Your task to perform on an android device: turn on showing notifications on the lock screen Image 0: 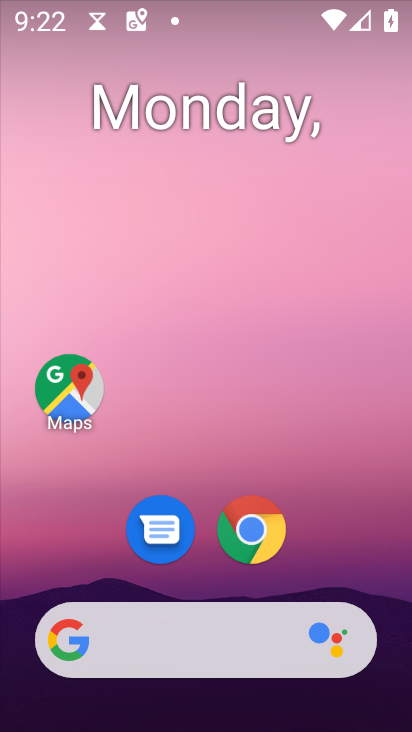
Step 0: drag from (218, 631) to (218, 232)
Your task to perform on an android device: turn on showing notifications on the lock screen Image 1: 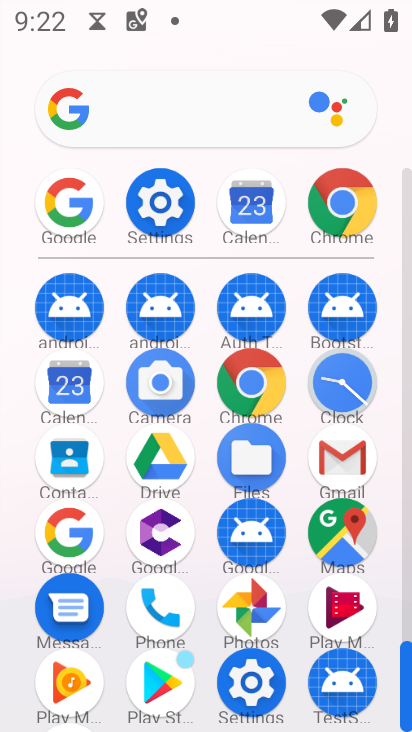
Step 1: click (152, 222)
Your task to perform on an android device: turn on showing notifications on the lock screen Image 2: 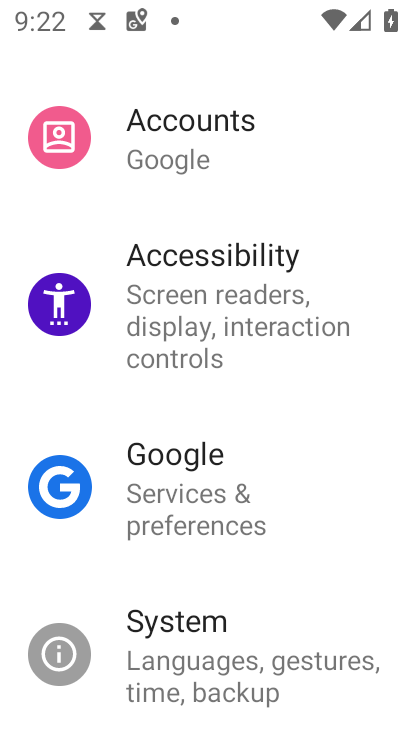
Step 2: press back button
Your task to perform on an android device: turn on showing notifications on the lock screen Image 3: 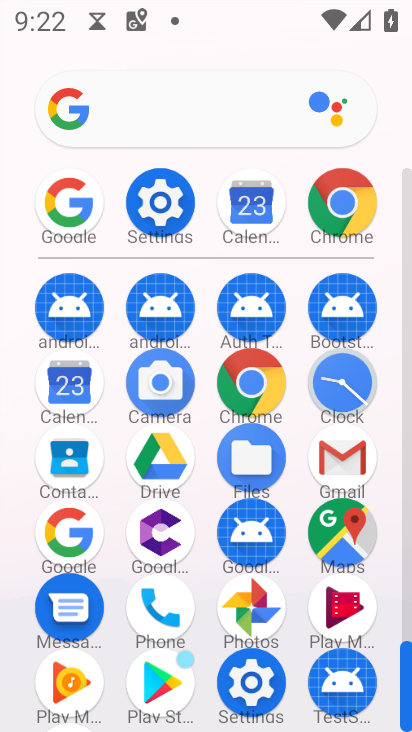
Step 3: click (171, 207)
Your task to perform on an android device: turn on showing notifications on the lock screen Image 4: 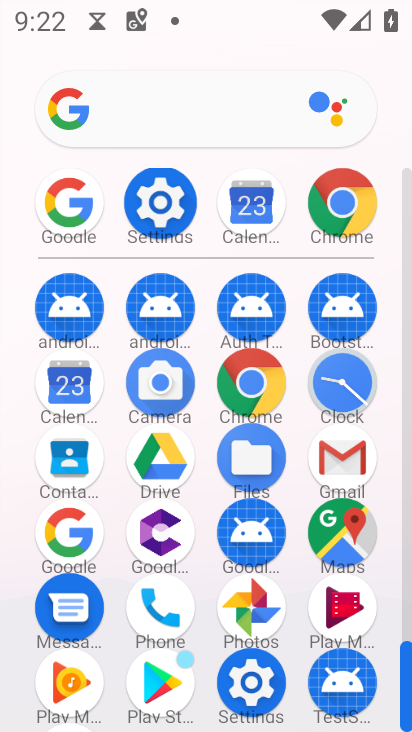
Step 4: click (169, 206)
Your task to perform on an android device: turn on showing notifications on the lock screen Image 5: 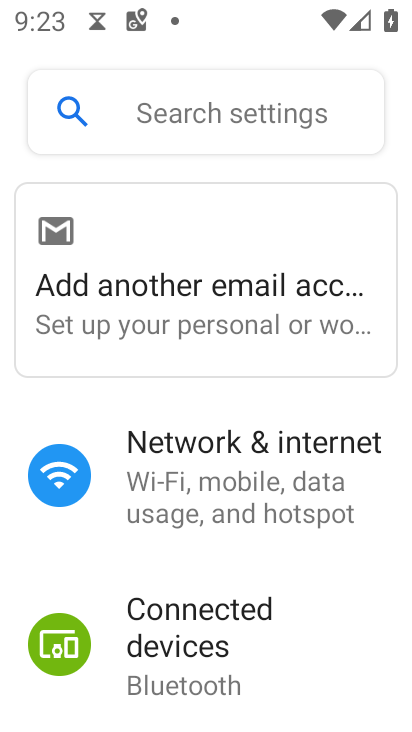
Step 5: drag from (249, 612) to (321, 188)
Your task to perform on an android device: turn on showing notifications on the lock screen Image 6: 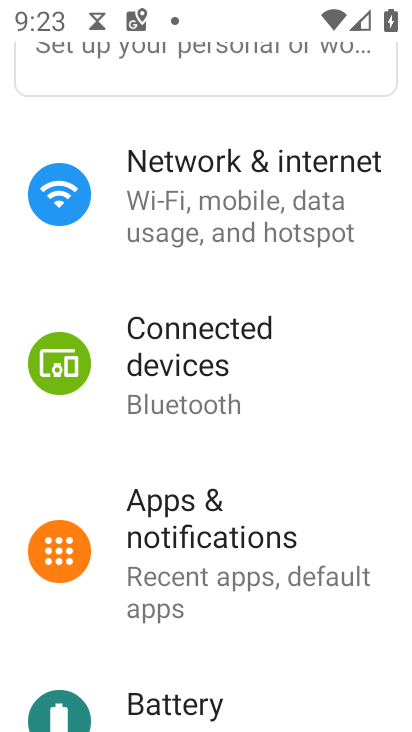
Step 6: drag from (198, 637) to (208, 184)
Your task to perform on an android device: turn on showing notifications on the lock screen Image 7: 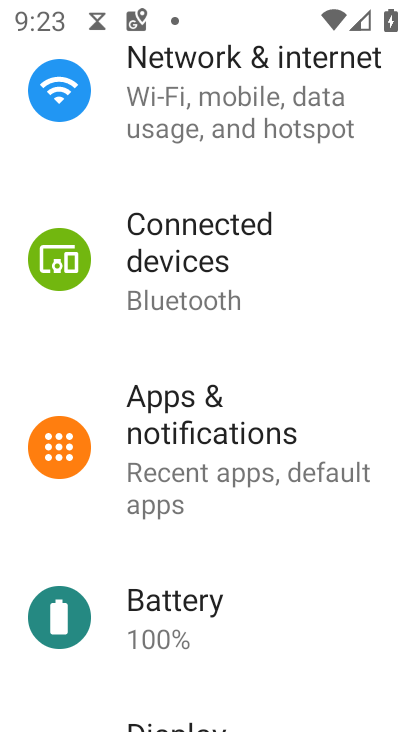
Step 7: drag from (203, 601) to (203, 212)
Your task to perform on an android device: turn on showing notifications on the lock screen Image 8: 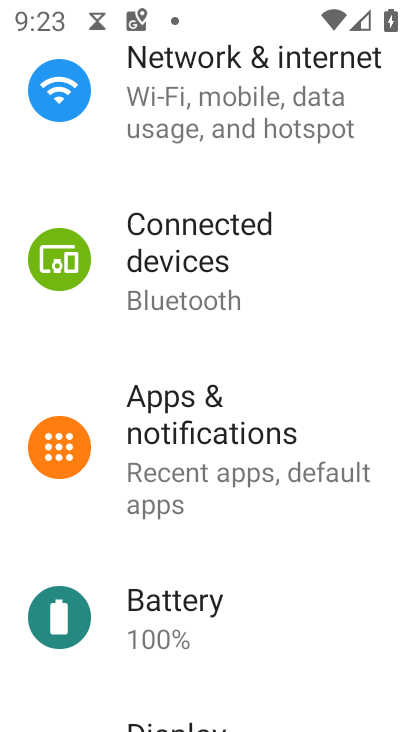
Step 8: drag from (236, 375) to (261, 113)
Your task to perform on an android device: turn on showing notifications on the lock screen Image 9: 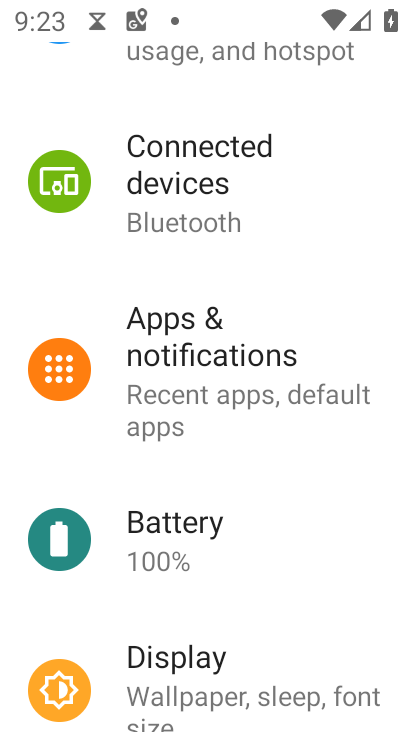
Step 9: drag from (257, 477) to (254, 89)
Your task to perform on an android device: turn on showing notifications on the lock screen Image 10: 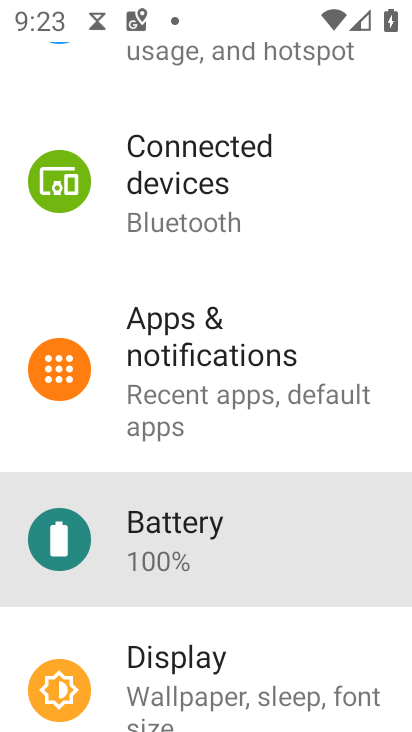
Step 10: drag from (203, 568) to (197, 150)
Your task to perform on an android device: turn on showing notifications on the lock screen Image 11: 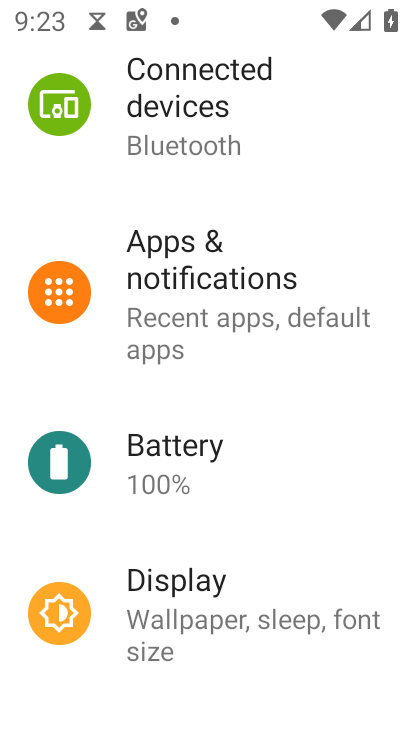
Step 11: drag from (204, 539) to (221, 222)
Your task to perform on an android device: turn on showing notifications on the lock screen Image 12: 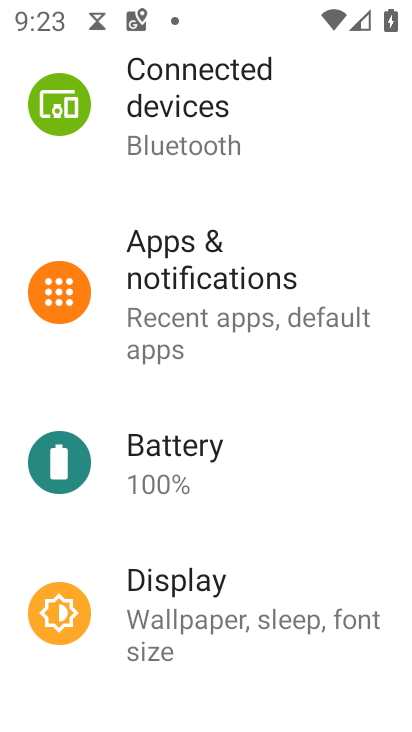
Step 12: drag from (229, 506) to (210, 170)
Your task to perform on an android device: turn on showing notifications on the lock screen Image 13: 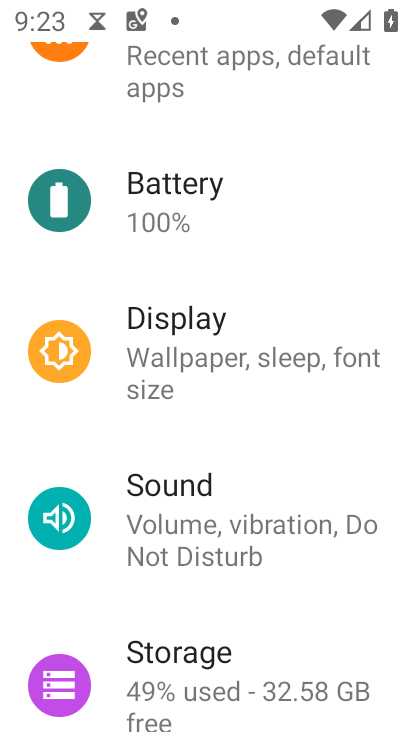
Step 13: drag from (236, 540) to (234, 136)
Your task to perform on an android device: turn on showing notifications on the lock screen Image 14: 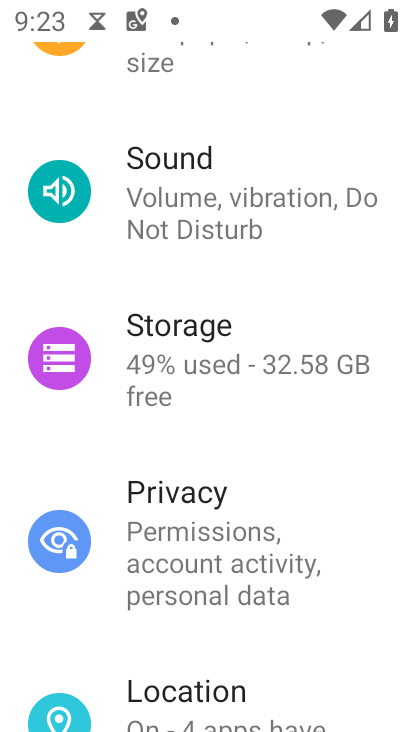
Step 14: drag from (263, 541) to (266, 138)
Your task to perform on an android device: turn on showing notifications on the lock screen Image 15: 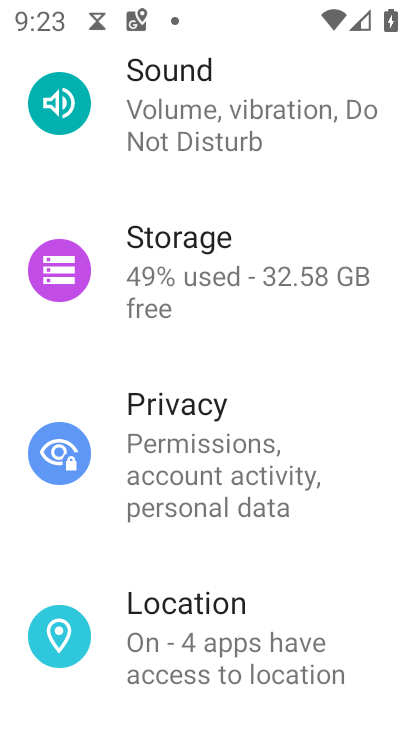
Step 15: drag from (208, 222) to (240, 653)
Your task to perform on an android device: turn on showing notifications on the lock screen Image 16: 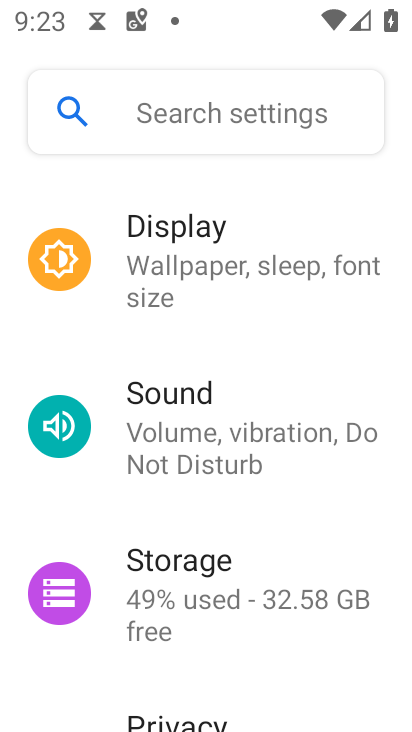
Step 16: drag from (215, 230) to (229, 661)
Your task to perform on an android device: turn on showing notifications on the lock screen Image 17: 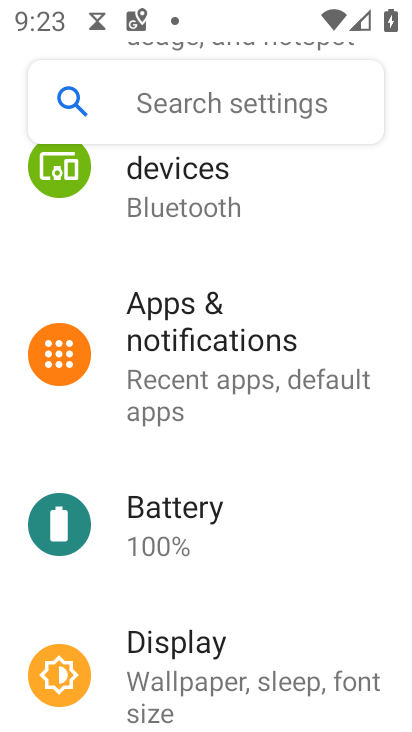
Step 17: drag from (166, 281) to (184, 705)
Your task to perform on an android device: turn on showing notifications on the lock screen Image 18: 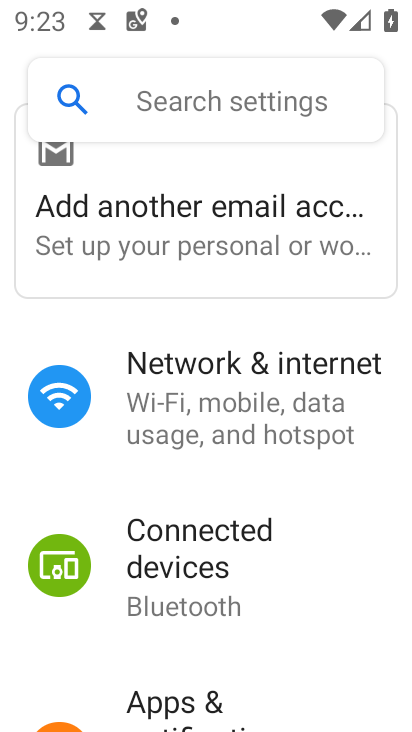
Step 18: drag from (179, 354) to (221, 701)
Your task to perform on an android device: turn on showing notifications on the lock screen Image 19: 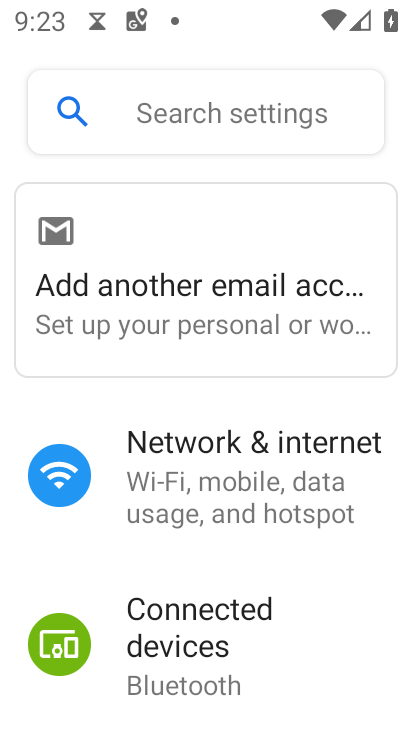
Step 19: drag from (197, 659) to (237, 339)
Your task to perform on an android device: turn on showing notifications on the lock screen Image 20: 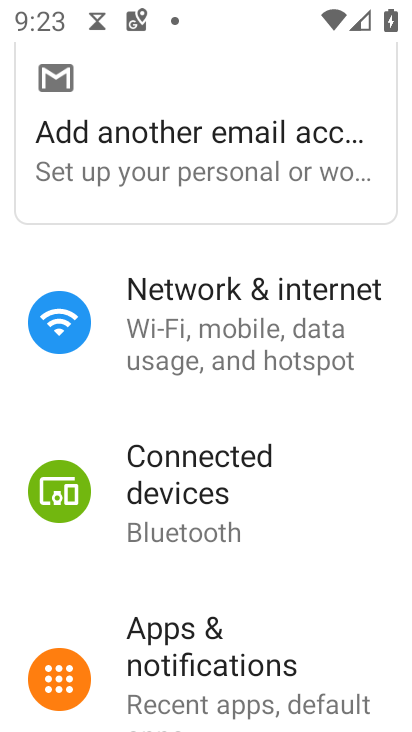
Step 20: drag from (201, 520) to (118, 264)
Your task to perform on an android device: turn on showing notifications on the lock screen Image 21: 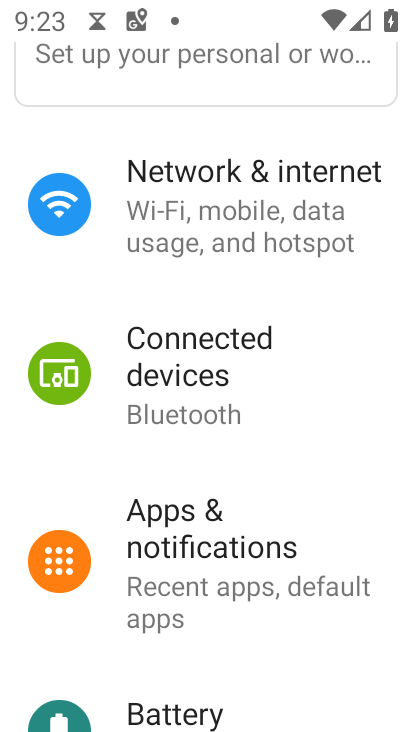
Step 21: drag from (159, 550) to (155, 359)
Your task to perform on an android device: turn on showing notifications on the lock screen Image 22: 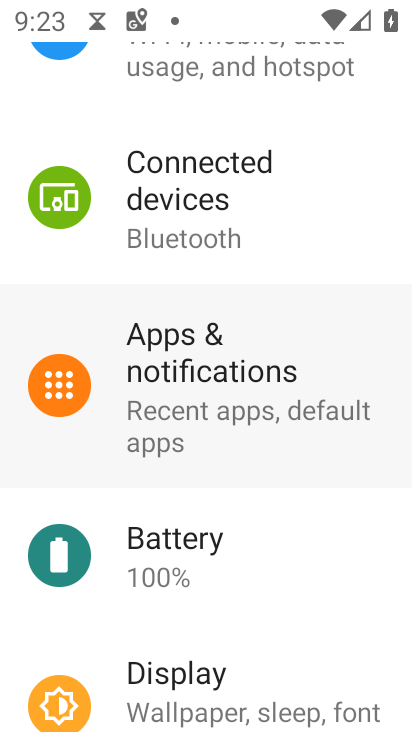
Step 22: drag from (191, 570) to (179, 329)
Your task to perform on an android device: turn on showing notifications on the lock screen Image 23: 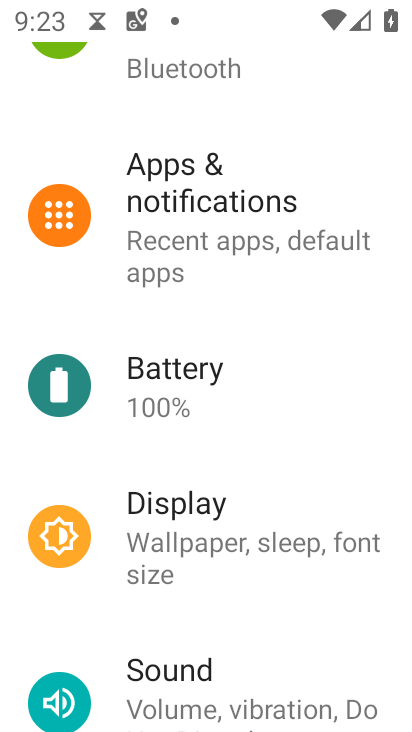
Step 23: click (204, 206)
Your task to perform on an android device: turn on showing notifications on the lock screen Image 24: 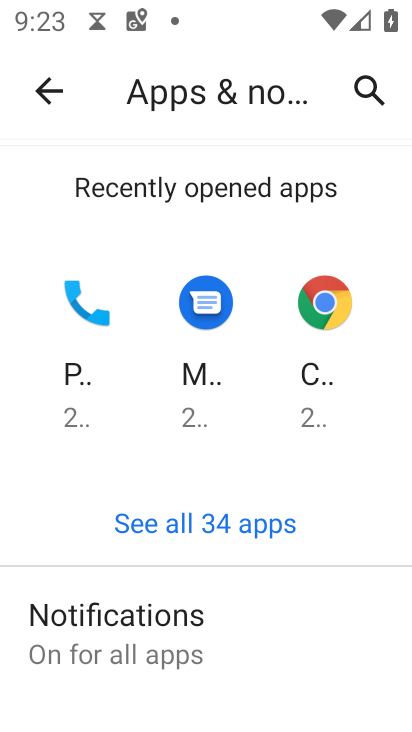
Step 24: drag from (206, 563) to (165, 176)
Your task to perform on an android device: turn on showing notifications on the lock screen Image 25: 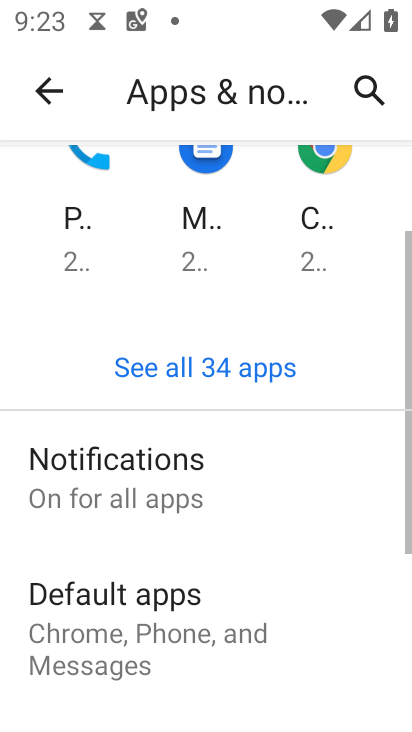
Step 25: drag from (172, 419) to (203, 79)
Your task to perform on an android device: turn on showing notifications on the lock screen Image 26: 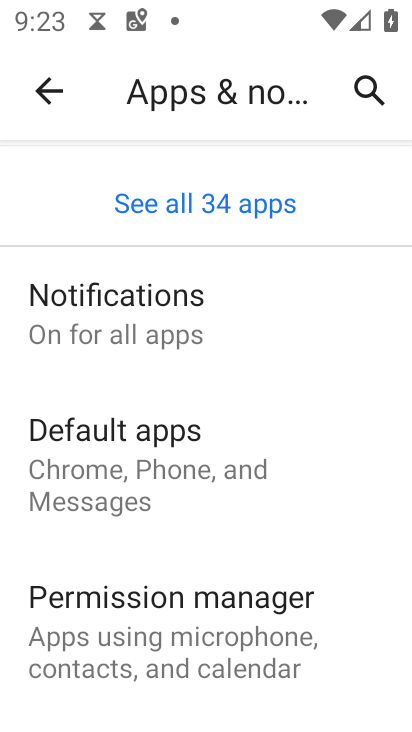
Step 26: click (106, 292)
Your task to perform on an android device: turn on showing notifications on the lock screen Image 27: 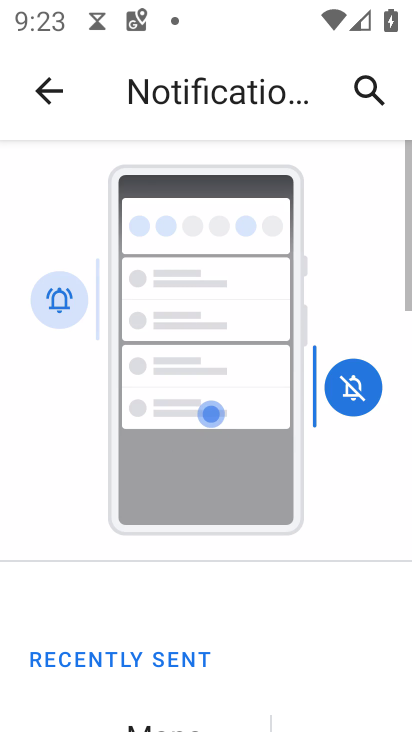
Step 27: drag from (202, 577) to (190, 187)
Your task to perform on an android device: turn on showing notifications on the lock screen Image 28: 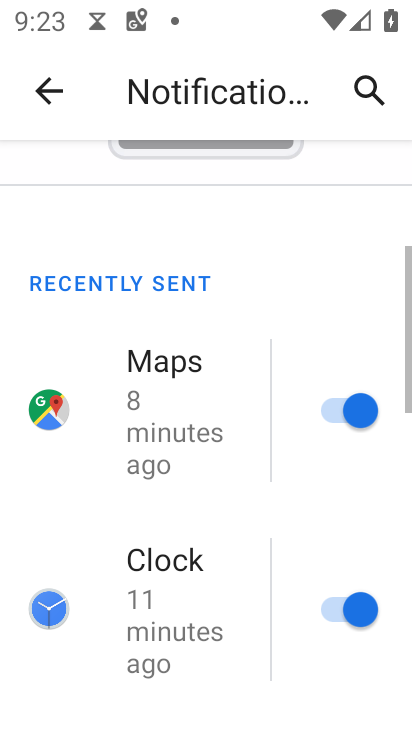
Step 28: drag from (201, 449) to (323, 91)
Your task to perform on an android device: turn on showing notifications on the lock screen Image 29: 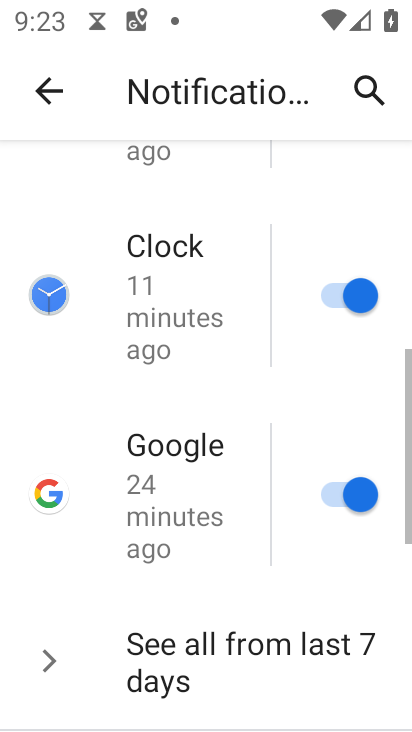
Step 29: drag from (203, 488) to (207, 129)
Your task to perform on an android device: turn on showing notifications on the lock screen Image 30: 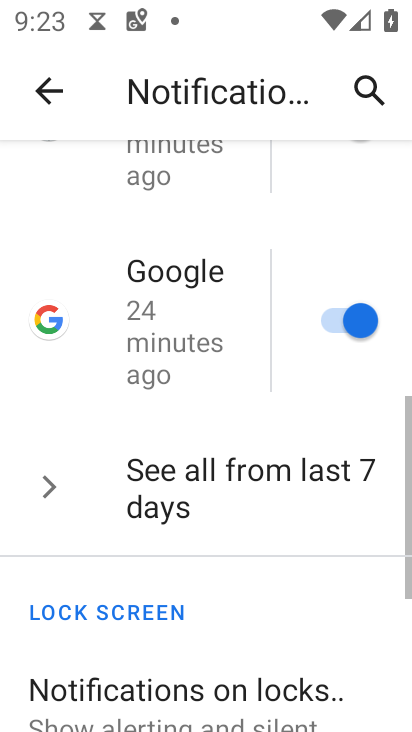
Step 30: drag from (267, 473) to (323, 104)
Your task to perform on an android device: turn on showing notifications on the lock screen Image 31: 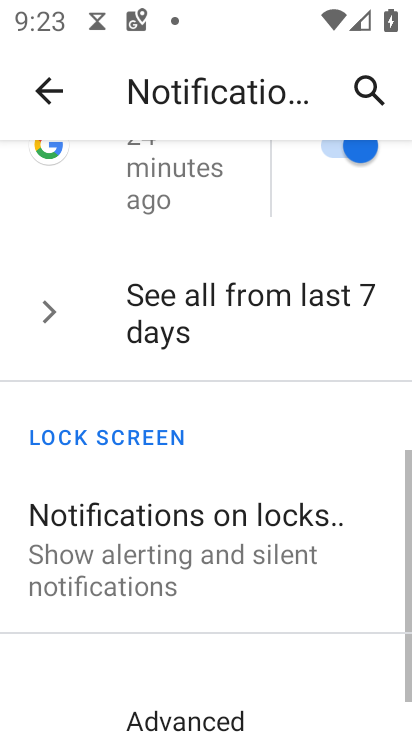
Step 31: drag from (169, 384) to (239, 162)
Your task to perform on an android device: turn on showing notifications on the lock screen Image 32: 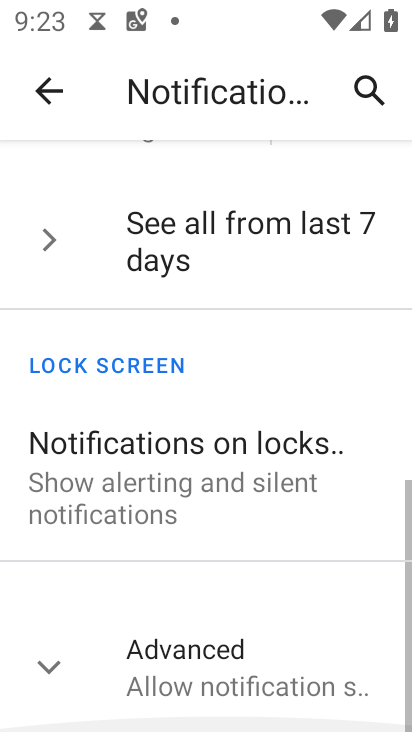
Step 32: drag from (299, 145) to (311, 101)
Your task to perform on an android device: turn on showing notifications on the lock screen Image 33: 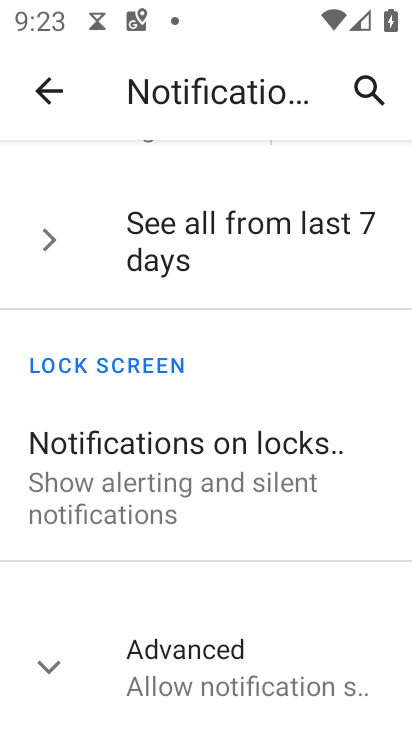
Step 33: click (100, 453)
Your task to perform on an android device: turn on showing notifications on the lock screen Image 34: 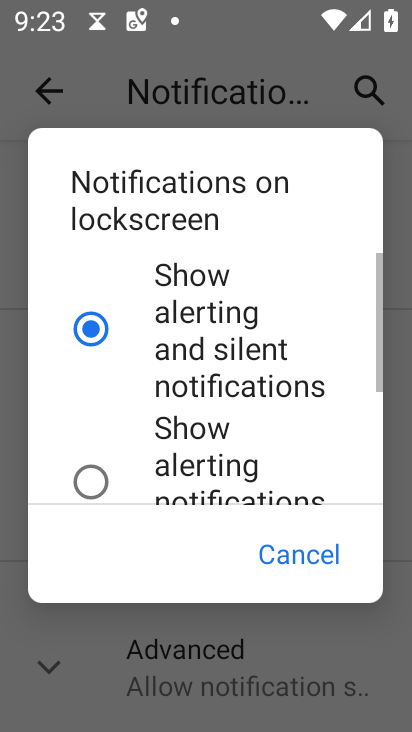
Step 34: task complete